Your task to perform on an android device: Open Chrome and go to settings Image 0: 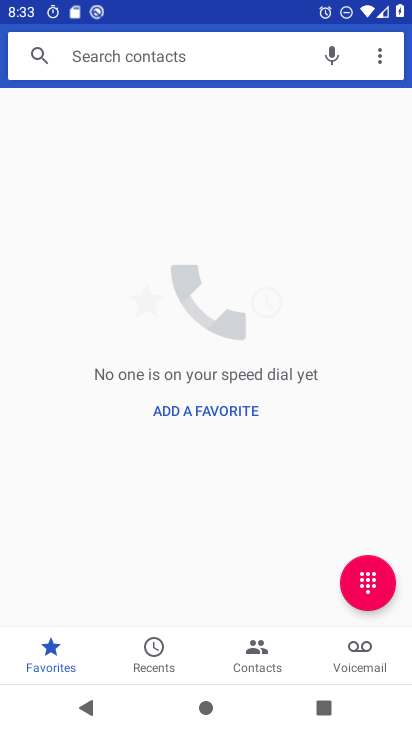
Step 0: press home button
Your task to perform on an android device: Open Chrome and go to settings Image 1: 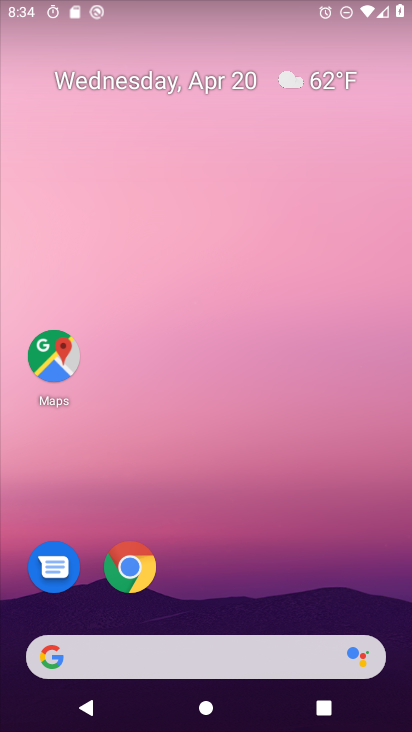
Step 1: click (136, 571)
Your task to perform on an android device: Open Chrome and go to settings Image 2: 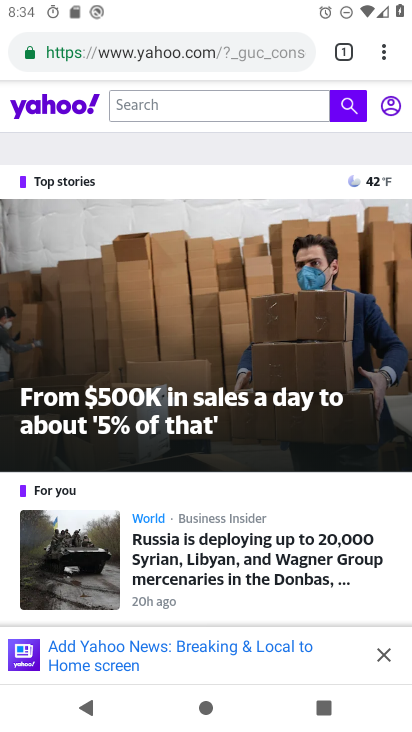
Step 2: click (381, 48)
Your task to perform on an android device: Open Chrome and go to settings Image 3: 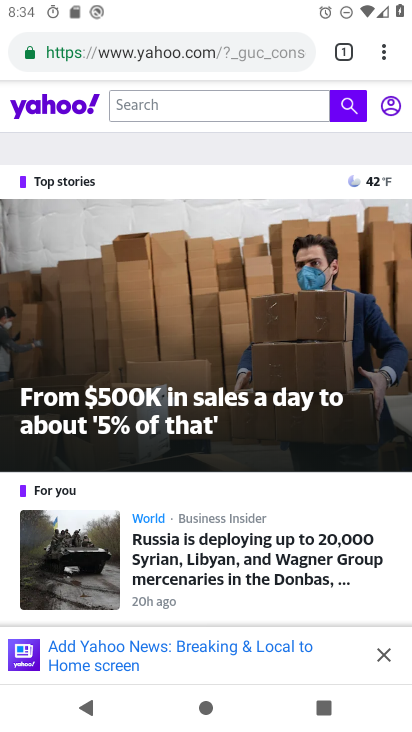
Step 3: click (386, 50)
Your task to perform on an android device: Open Chrome and go to settings Image 4: 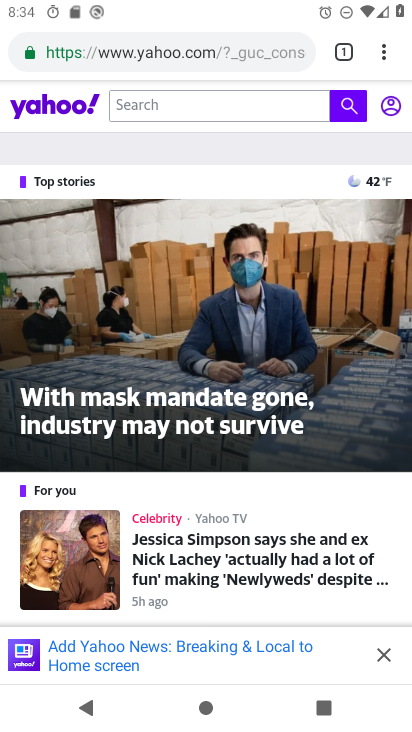
Step 4: click (382, 55)
Your task to perform on an android device: Open Chrome and go to settings Image 5: 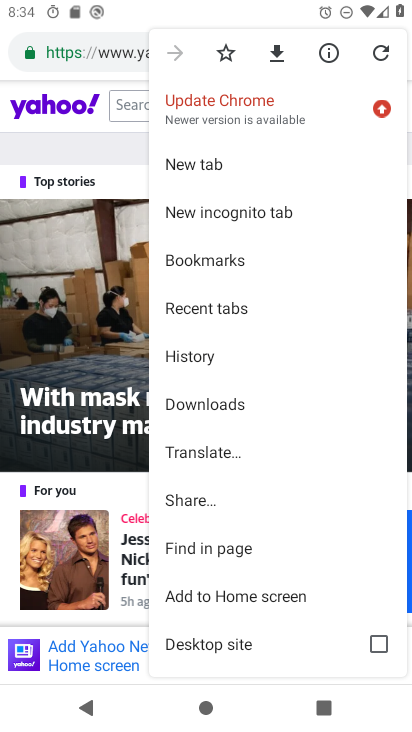
Step 5: drag from (311, 568) to (293, 173)
Your task to perform on an android device: Open Chrome and go to settings Image 6: 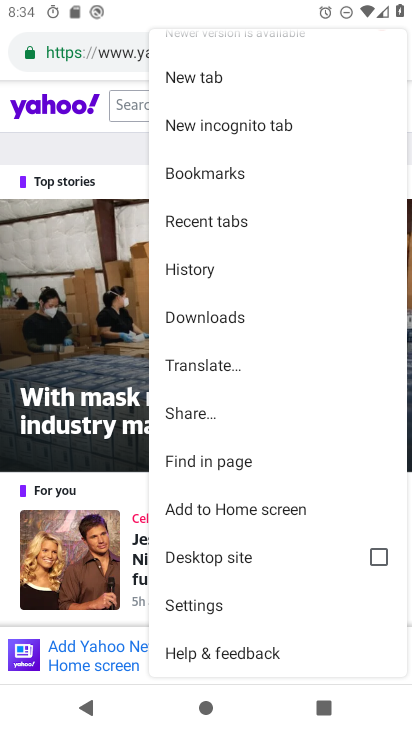
Step 6: click (203, 609)
Your task to perform on an android device: Open Chrome and go to settings Image 7: 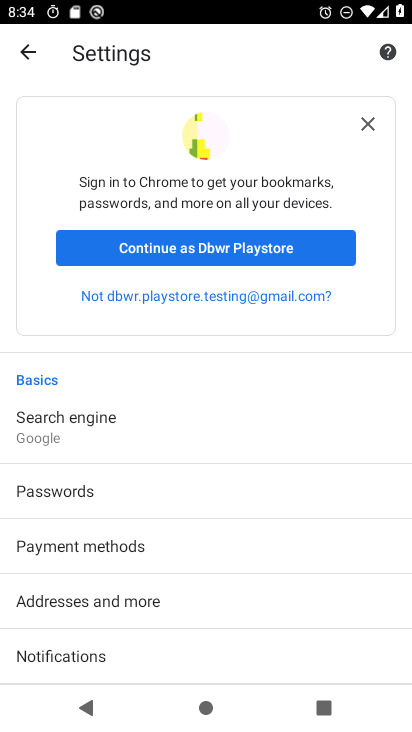
Step 7: task complete